Your task to perform on an android device: change the clock display to show seconds Image 0: 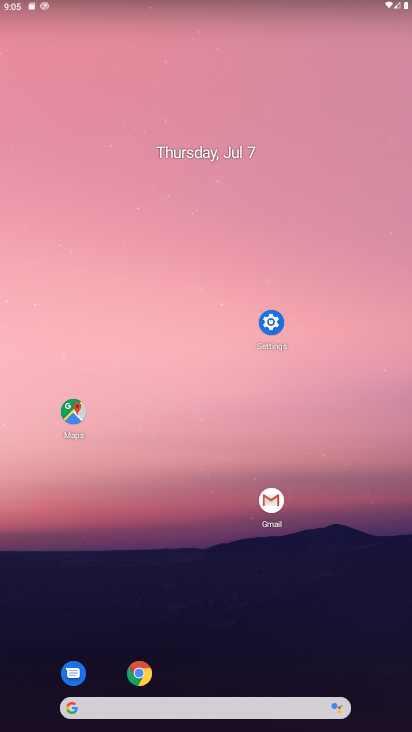
Step 0: drag from (389, 564) to (306, 98)
Your task to perform on an android device: change the clock display to show seconds Image 1: 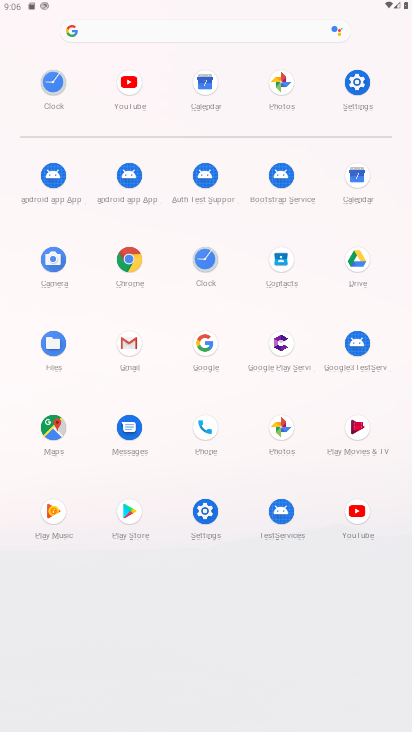
Step 1: click (207, 255)
Your task to perform on an android device: change the clock display to show seconds Image 2: 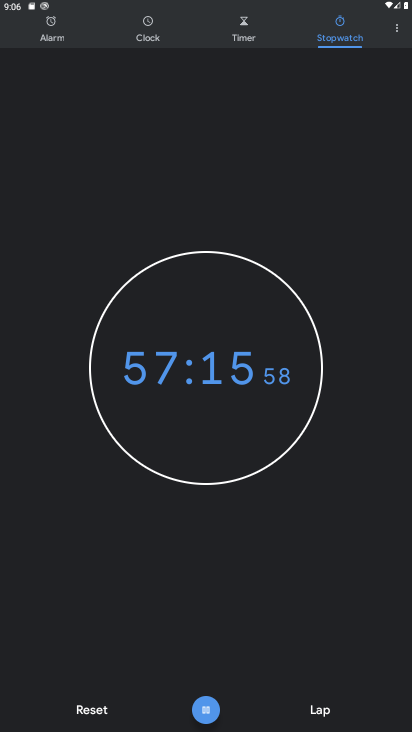
Step 2: click (396, 29)
Your task to perform on an android device: change the clock display to show seconds Image 3: 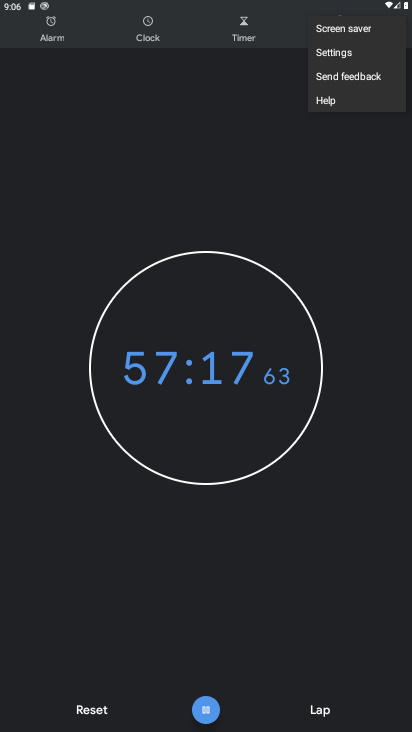
Step 3: click (355, 53)
Your task to perform on an android device: change the clock display to show seconds Image 4: 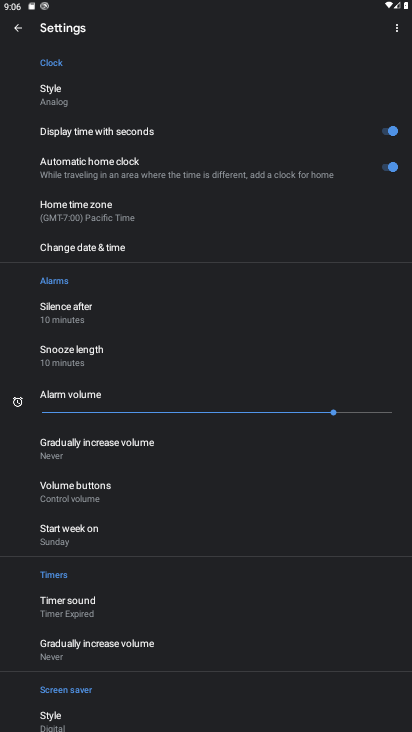
Step 4: task complete